Your task to perform on an android device: empty trash in the gmail app Image 0: 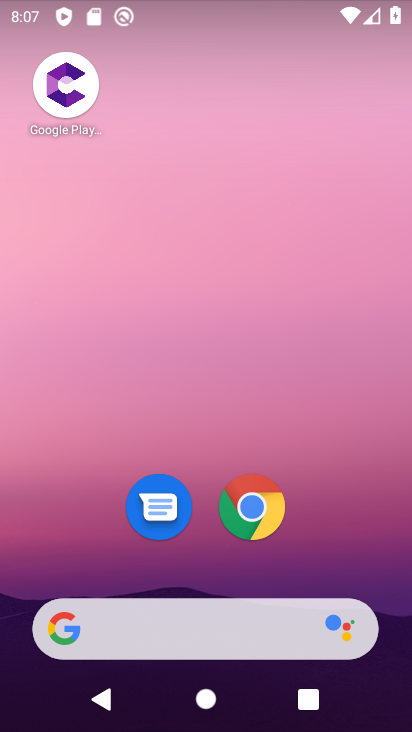
Step 0: drag from (49, 589) to (175, 100)
Your task to perform on an android device: empty trash in the gmail app Image 1: 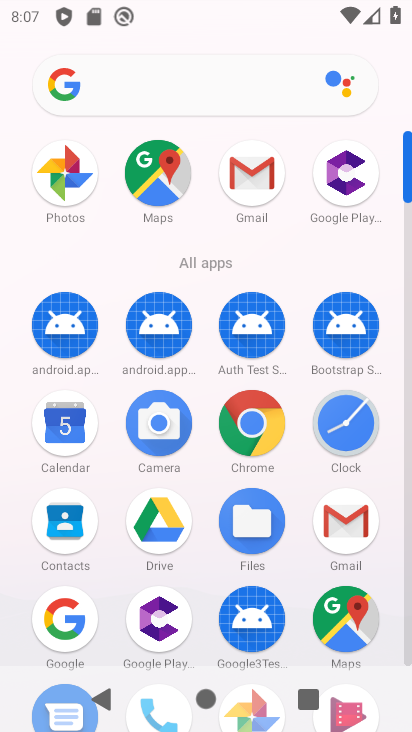
Step 1: click (350, 535)
Your task to perform on an android device: empty trash in the gmail app Image 2: 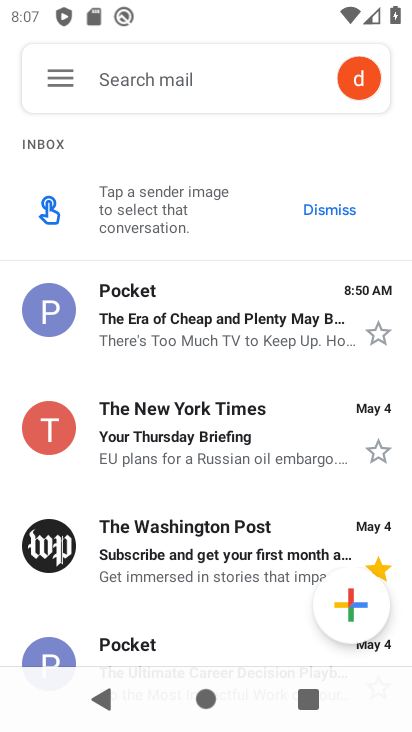
Step 2: click (68, 69)
Your task to perform on an android device: empty trash in the gmail app Image 3: 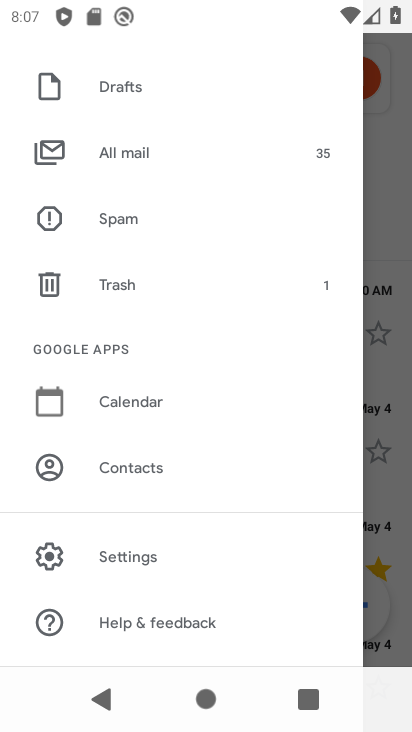
Step 3: click (149, 290)
Your task to perform on an android device: empty trash in the gmail app Image 4: 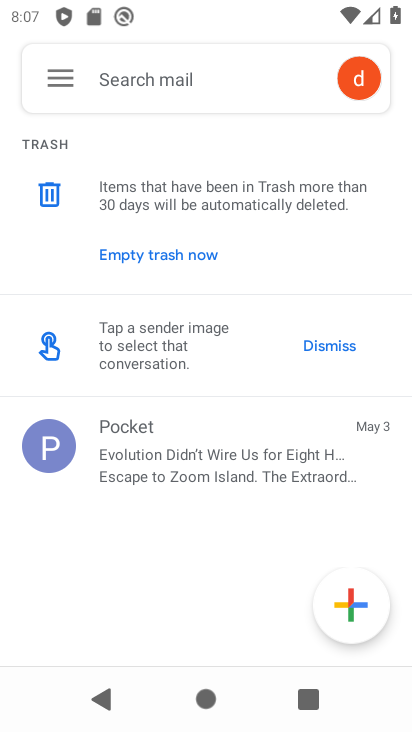
Step 4: click (199, 250)
Your task to perform on an android device: empty trash in the gmail app Image 5: 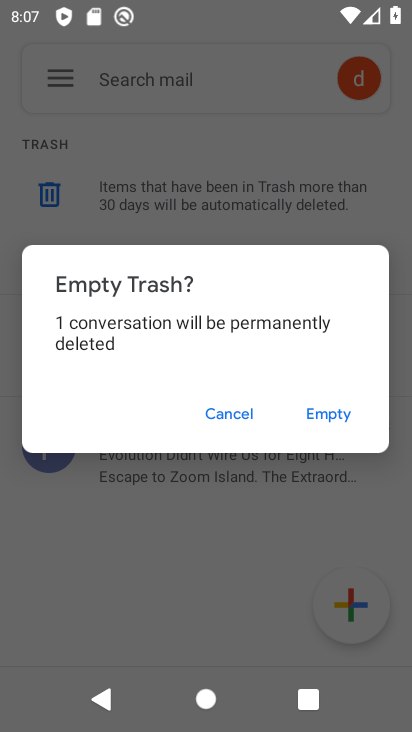
Step 5: click (339, 401)
Your task to perform on an android device: empty trash in the gmail app Image 6: 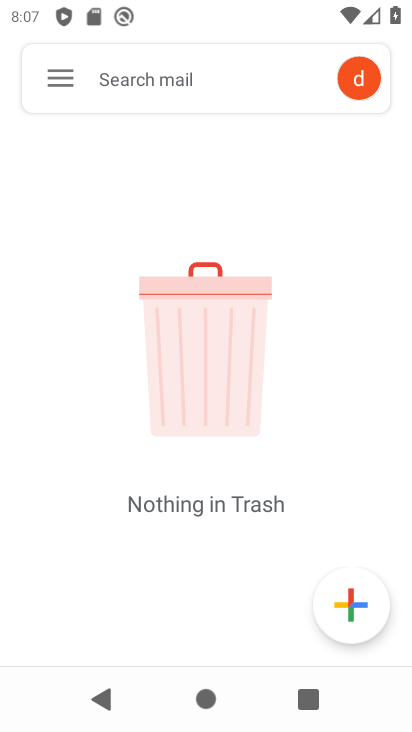
Step 6: task complete